Your task to perform on an android device: Search for the new Nike Air Jordan 33 on Nike.com Image 0: 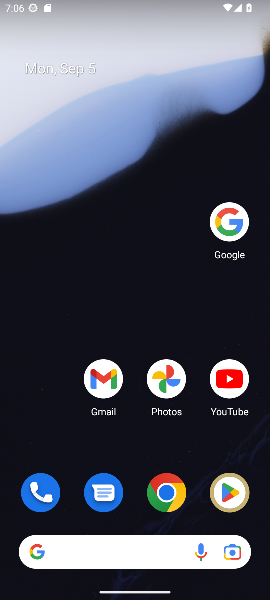
Step 0: click (227, 218)
Your task to perform on an android device: Search for the new Nike Air Jordan 33 on Nike.com Image 1: 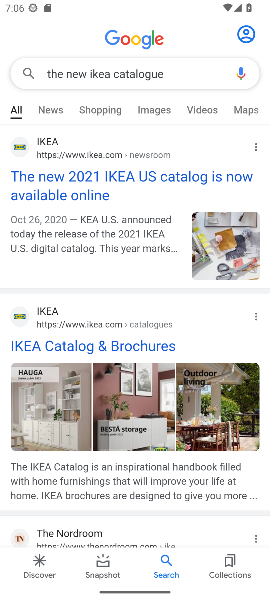
Step 1: click (172, 73)
Your task to perform on an android device: Search for the new Nike Air Jordan 33 on Nike.com Image 2: 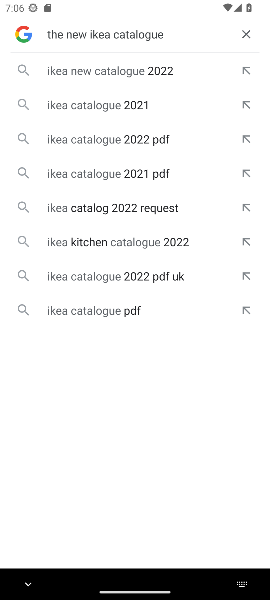
Step 2: click (248, 27)
Your task to perform on an android device: Search for the new Nike Air Jordan 33 on Nike.com Image 3: 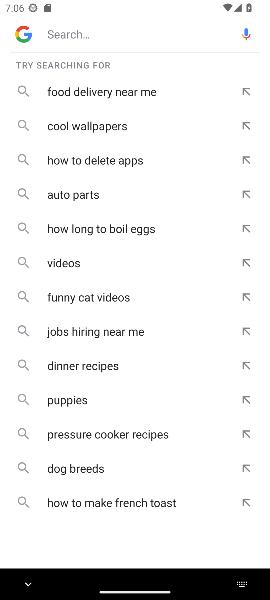
Step 3: click (114, 36)
Your task to perform on an android device: Search for the new Nike Air Jordan 33 on Nike.com Image 4: 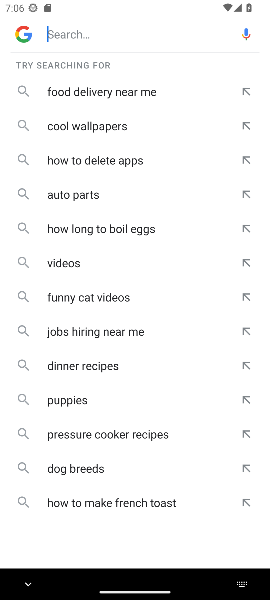
Step 4: type " new Nike Air Jordan 33 on Nike.com "
Your task to perform on an android device: Search for the new Nike Air Jordan 33 on Nike.com Image 5: 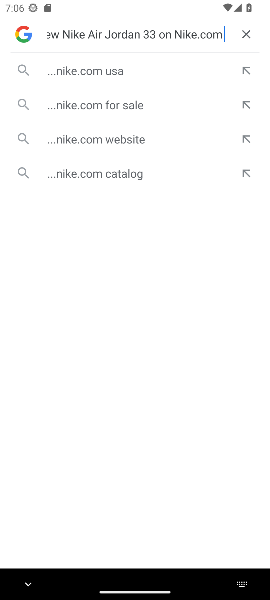
Step 5: click (73, 63)
Your task to perform on an android device: Search for the new Nike Air Jordan 33 on Nike.com Image 6: 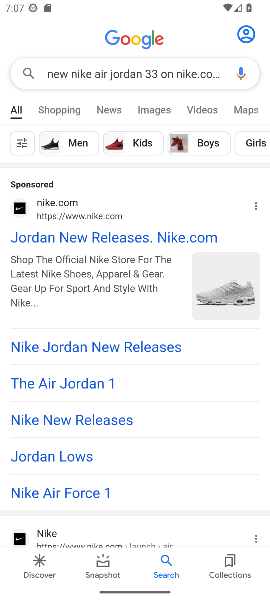
Step 6: task complete